Your task to perform on an android device: search for starred emails in the gmail app Image 0: 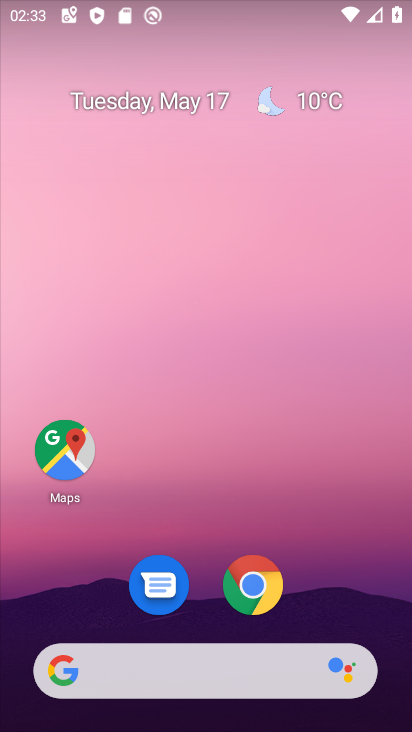
Step 0: drag from (280, 484) to (237, 40)
Your task to perform on an android device: search for starred emails in the gmail app Image 1: 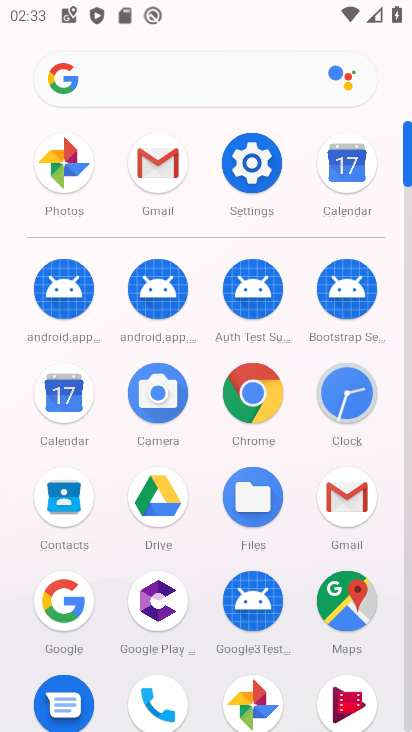
Step 1: click (162, 171)
Your task to perform on an android device: search for starred emails in the gmail app Image 2: 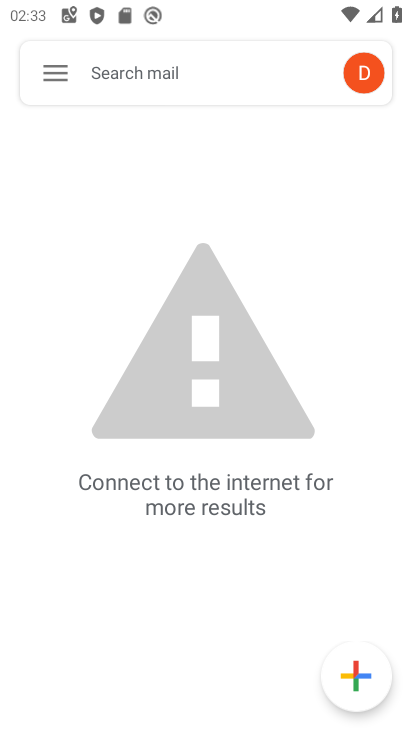
Step 2: click (63, 75)
Your task to perform on an android device: search for starred emails in the gmail app Image 3: 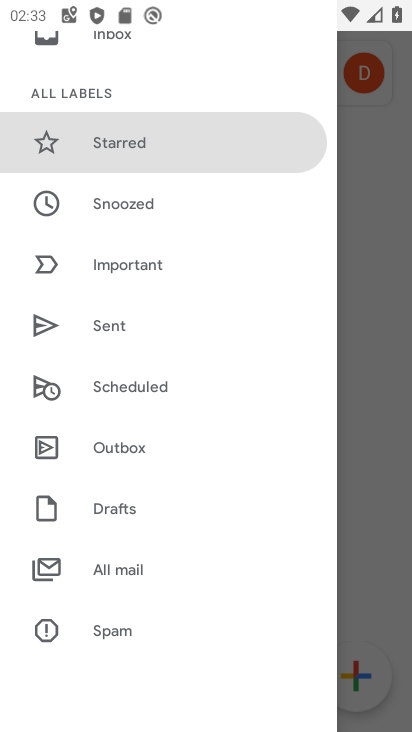
Step 3: click (107, 142)
Your task to perform on an android device: search for starred emails in the gmail app Image 4: 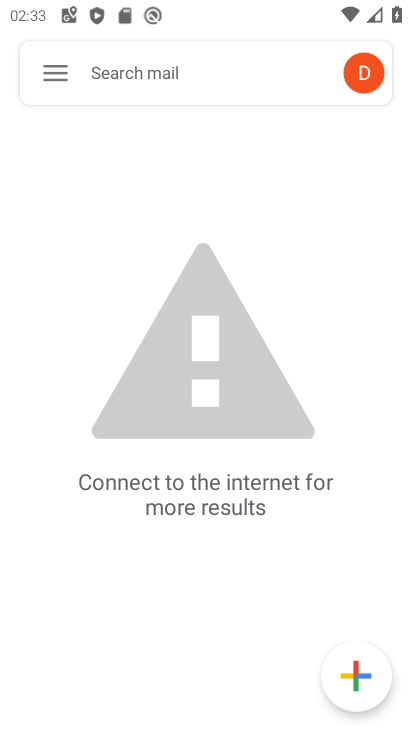
Step 4: click (215, 348)
Your task to perform on an android device: search for starred emails in the gmail app Image 5: 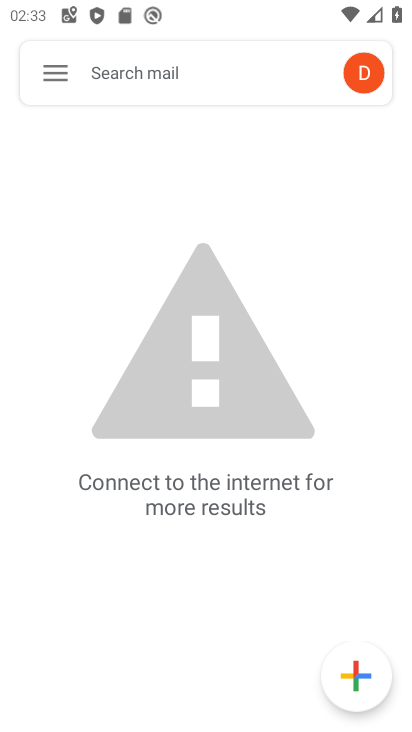
Step 5: click (57, 74)
Your task to perform on an android device: search for starred emails in the gmail app Image 6: 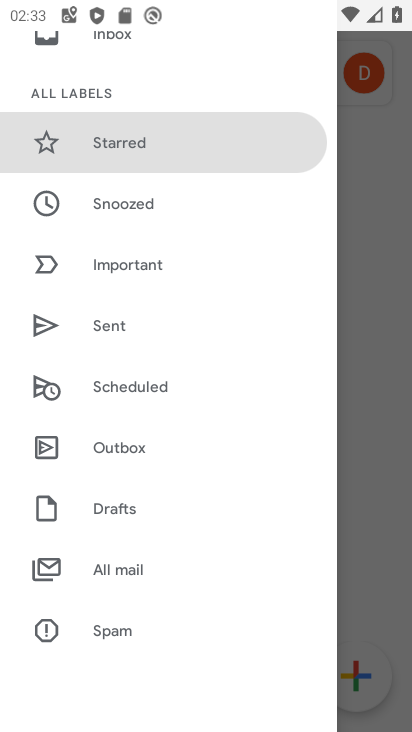
Step 6: click (117, 202)
Your task to perform on an android device: search for starred emails in the gmail app Image 7: 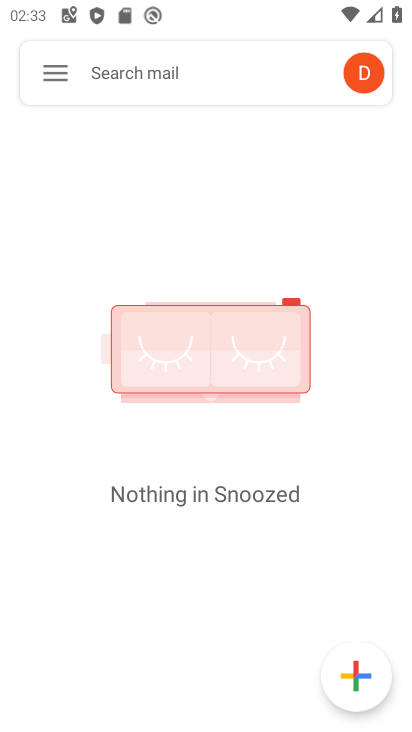
Step 7: click (54, 67)
Your task to perform on an android device: search for starred emails in the gmail app Image 8: 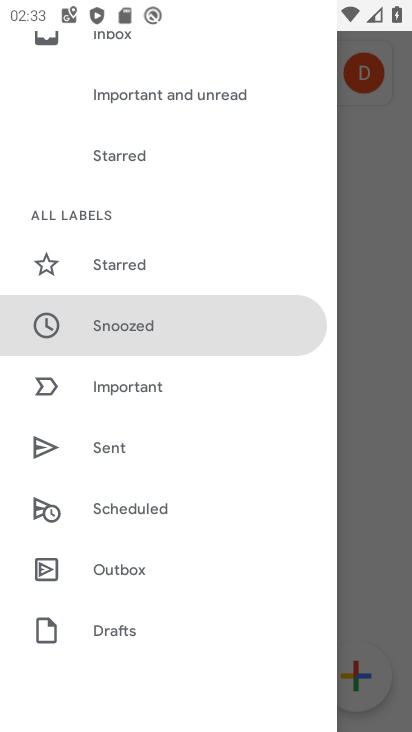
Step 8: click (137, 259)
Your task to perform on an android device: search for starred emails in the gmail app Image 9: 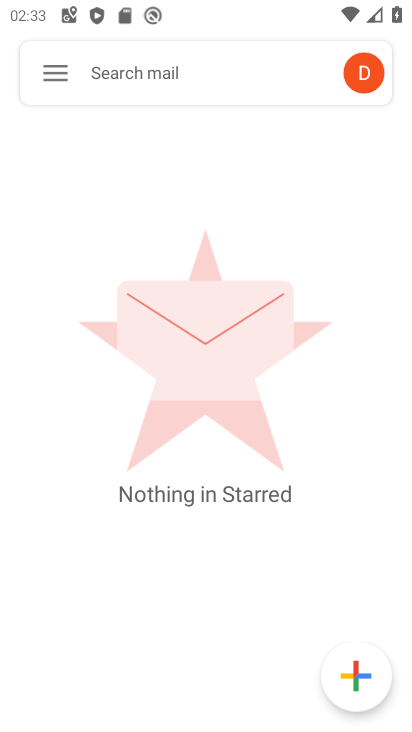
Step 9: task complete